Your task to perform on an android device: Search for pizza restaurants on Maps Image 0: 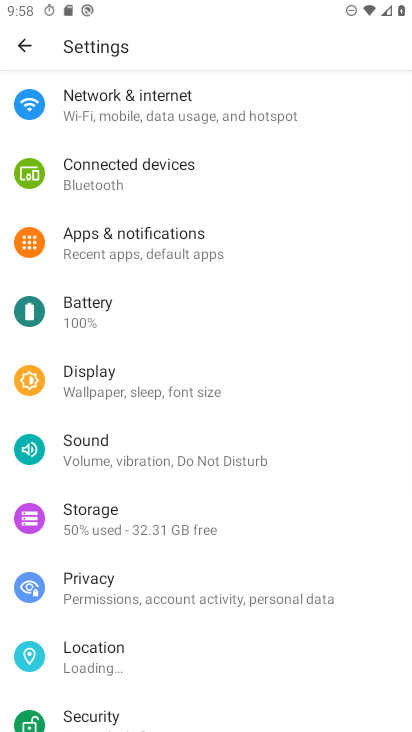
Step 0: press home button
Your task to perform on an android device: Search for pizza restaurants on Maps Image 1: 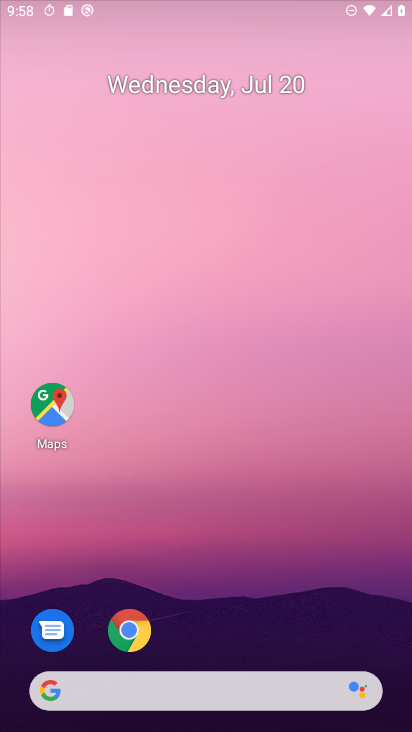
Step 1: drag from (169, 694) to (219, 135)
Your task to perform on an android device: Search for pizza restaurants on Maps Image 2: 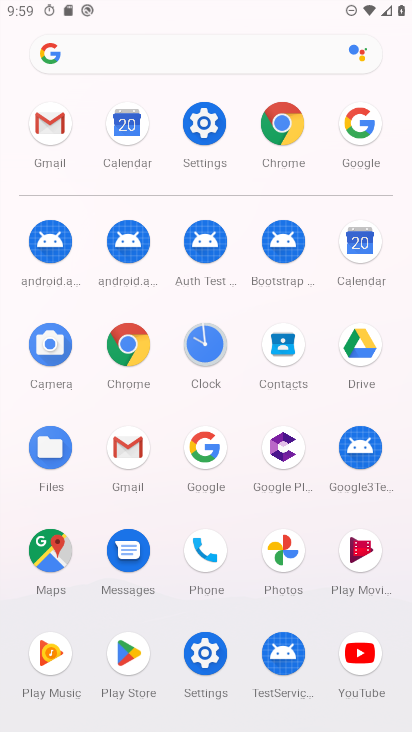
Step 2: click (60, 554)
Your task to perform on an android device: Search for pizza restaurants on Maps Image 3: 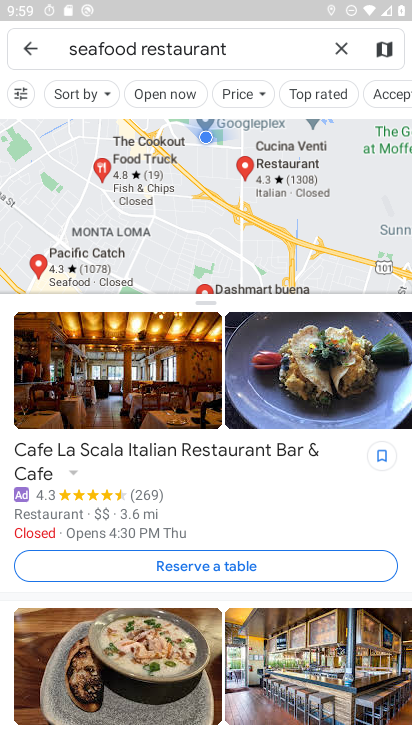
Step 3: click (342, 52)
Your task to perform on an android device: Search for pizza restaurants on Maps Image 4: 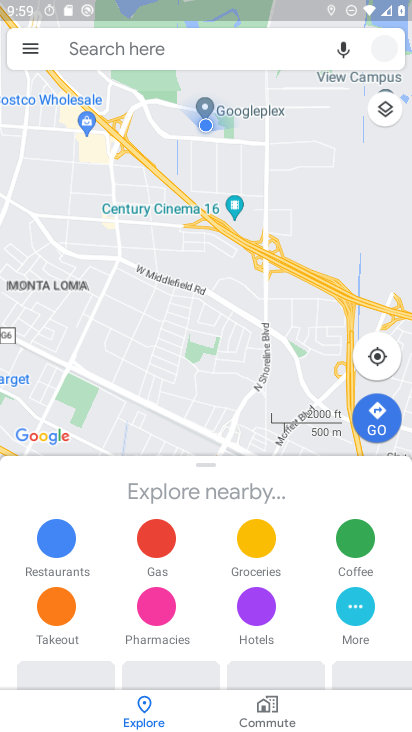
Step 4: click (191, 51)
Your task to perform on an android device: Search for pizza restaurants on Maps Image 5: 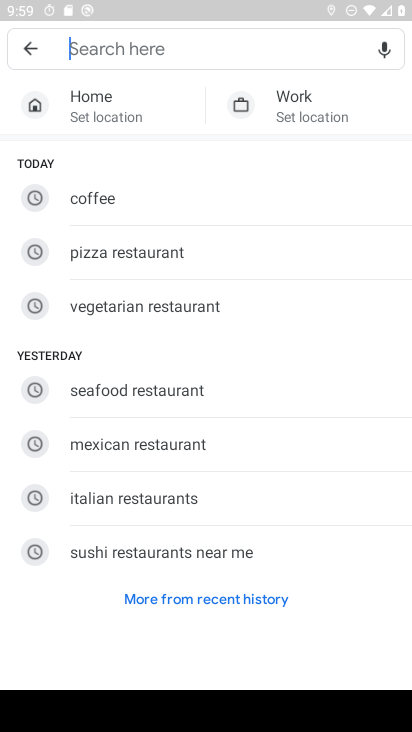
Step 5: click (134, 258)
Your task to perform on an android device: Search for pizza restaurants on Maps Image 6: 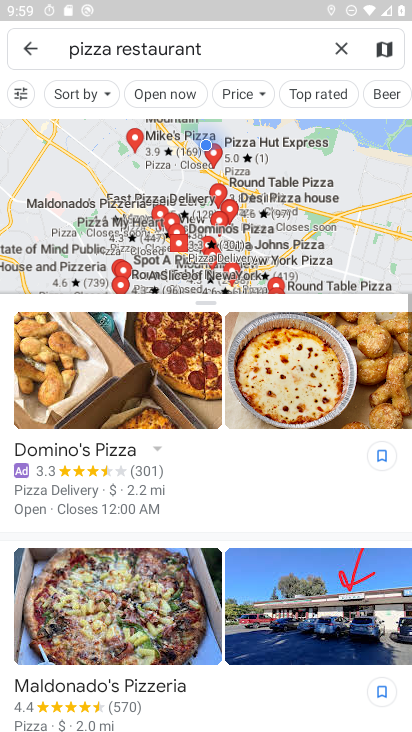
Step 6: task complete